Your task to perform on an android device: Set the phone to "Do not disturb". Image 0: 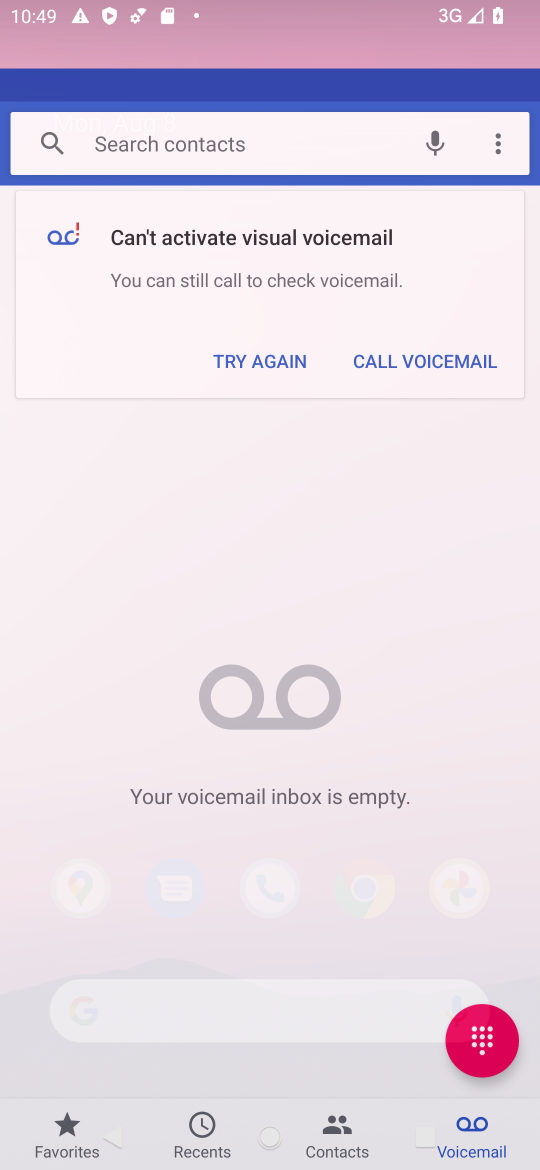
Step 0: press home button
Your task to perform on an android device: Set the phone to "Do not disturb". Image 1: 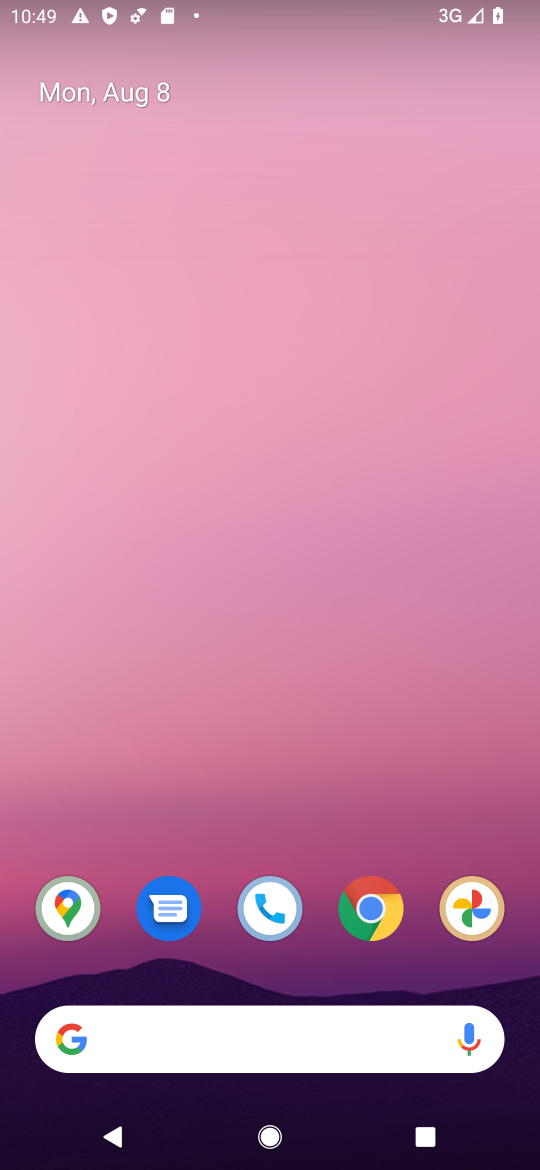
Step 1: drag from (317, 872) to (334, 72)
Your task to perform on an android device: Set the phone to "Do not disturb". Image 2: 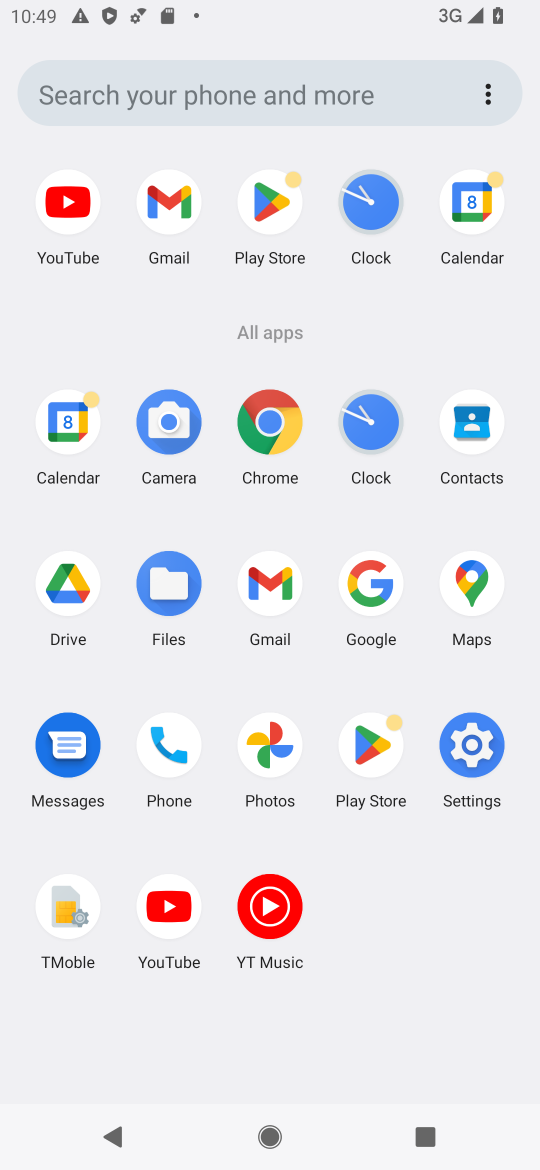
Step 2: drag from (311, 11) to (308, 774)
Your task to perform on an android device: Set the phone to "Do not disturb". Image 3: 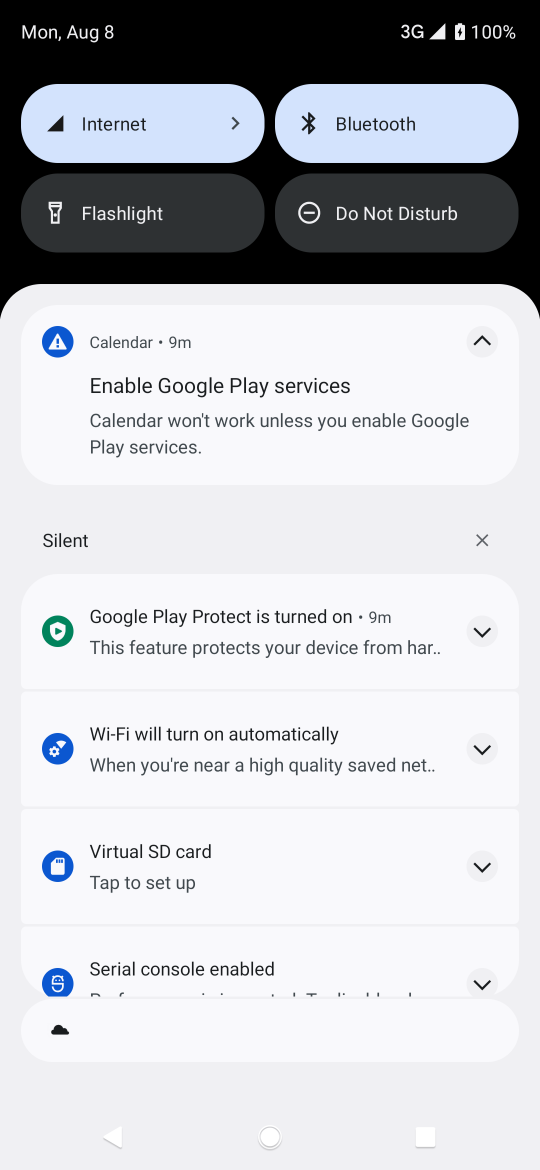
Step 3: click (373, 219)
Your task to perform on an android device: Set the phone to "Do not disturb". Image 4: 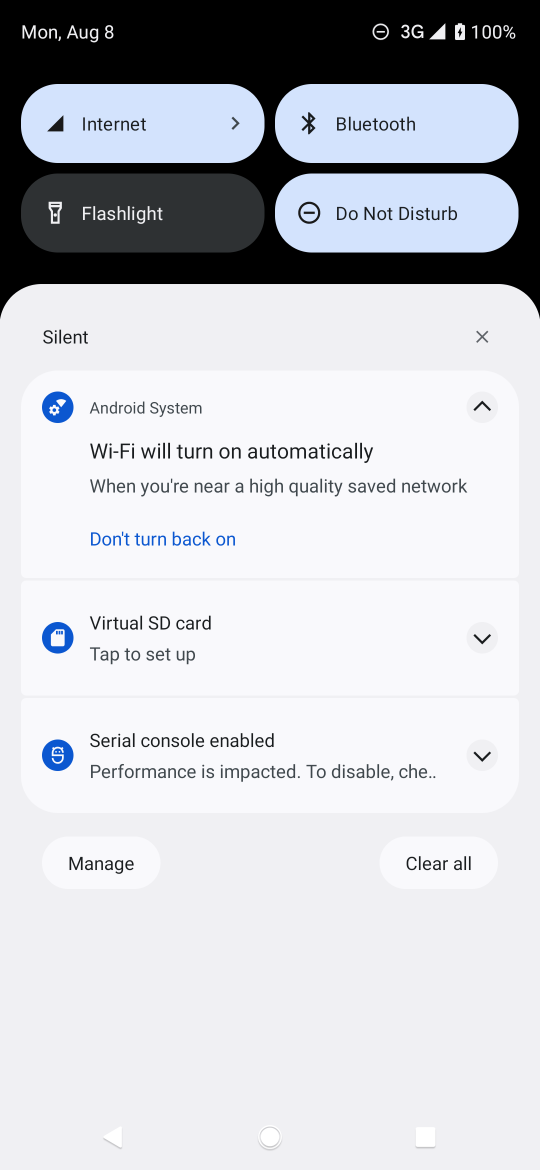
Step 4: task complete